Your task to perform on an android device: toggle location history Image 0: 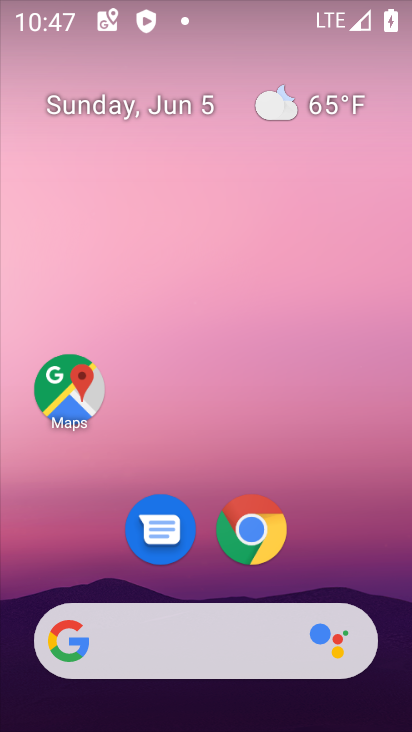
Step 0: drag from (196, 710) to (248, 12)
Your task to perform on an android device: toggle location history Image 1: 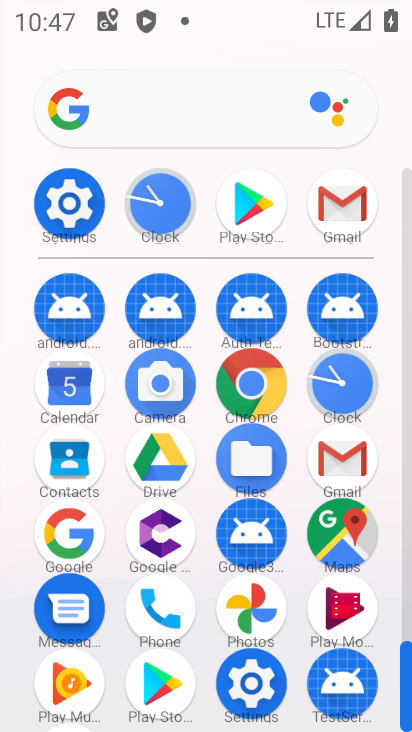
Step 1: click (69, 212)
Your task to perform on an android device: toggle location history Image 2: 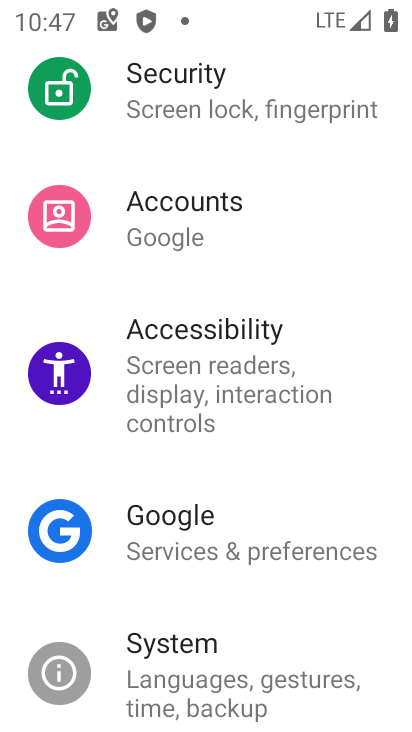
Step 2: drag from (281, 646) to (310, 83)
Your task to perform on an android device: toggle location history Image 3: 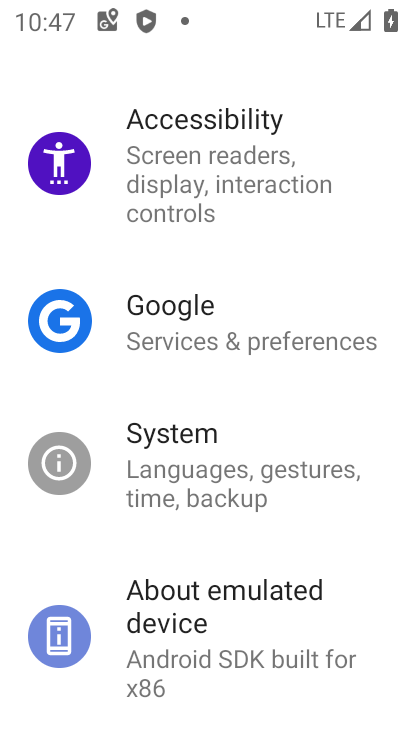
Step 3: drag from (287, 611) to (326, 124)
Your task to perform on an android device: toggle location history Image 4: 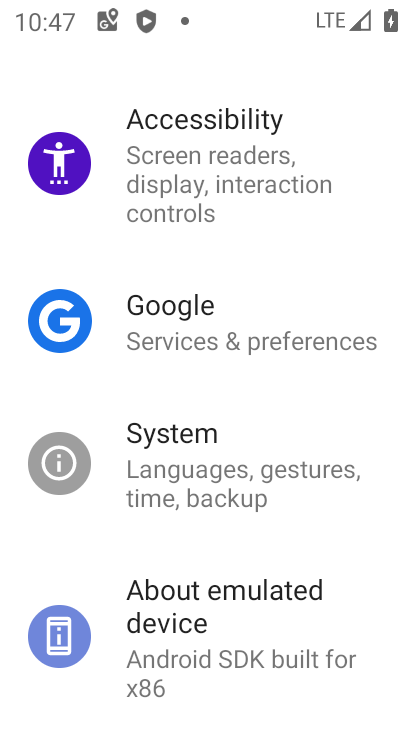
Step 4: drag from (242, 256) to (152, 701)
Your task to perform on an android device: toggle location history Image 5: 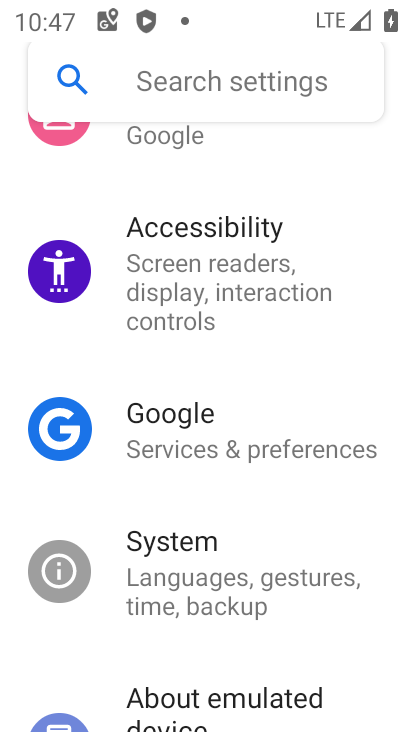
Step 5: drag from (318, 196) to (269, 690)
Your task to perform on an android device: toggle location history Image 6: 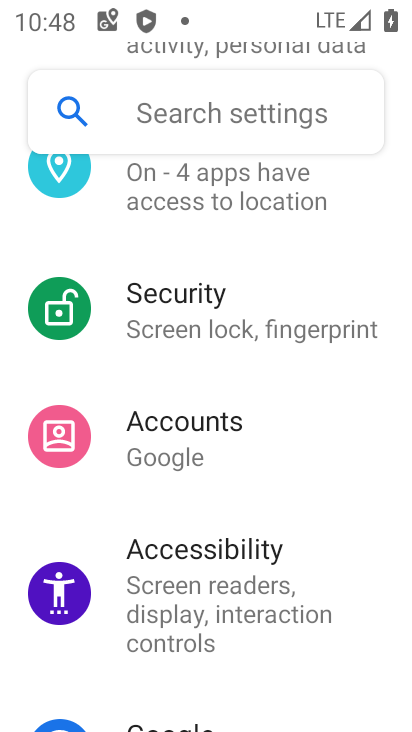
Step 6: drag from (280, 226) to (311, 555)
Your task to perform on an android device: toggle location history Image 7: 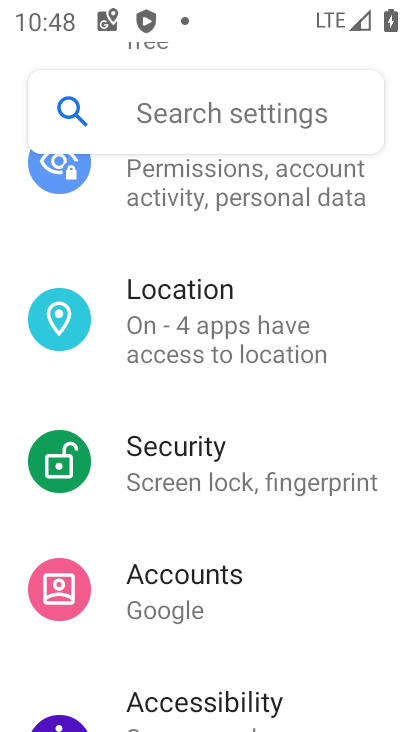
Step 7: click (252, 360)
Your task to perform on an android device: toggle location history Image 8: 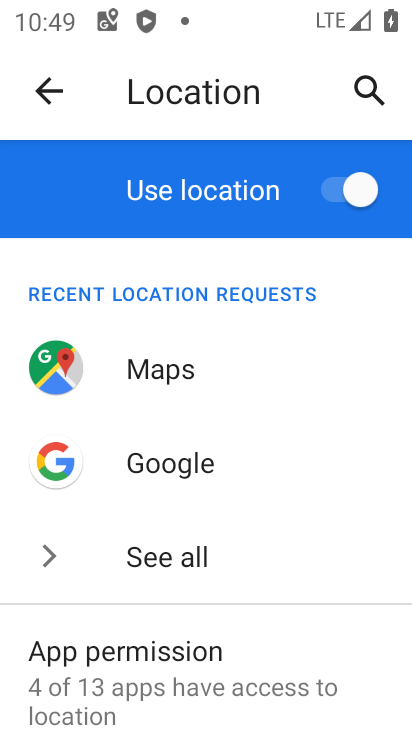
Step 8: click (354, 184)
Your task to perform on an android device: toggle location history Image 9: 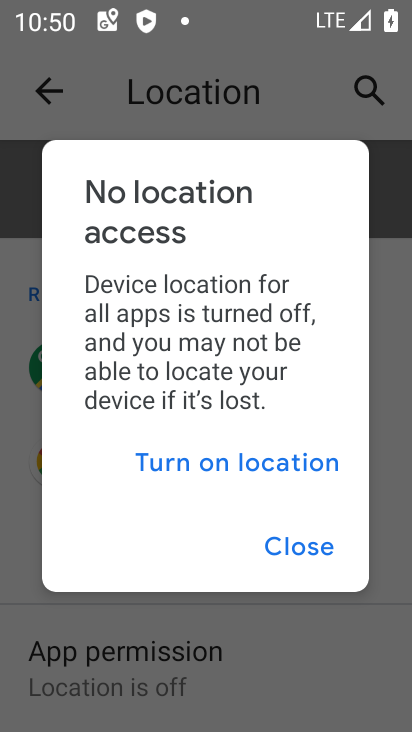
Step 9: click (298, 550)
Your task to perform on an android device: toggle location history Image 10: 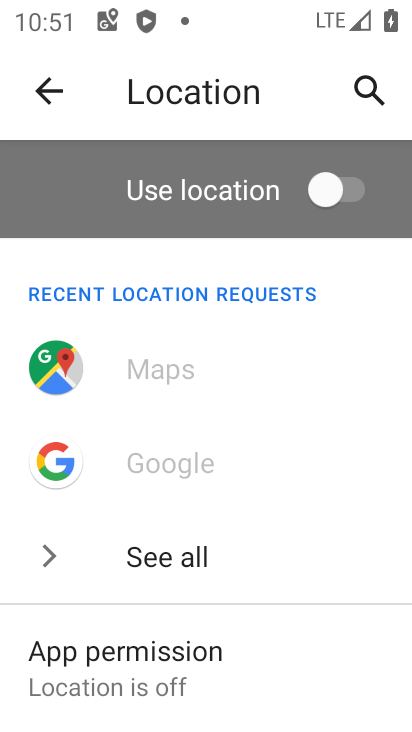
Step 10: task complete